Your task to perform on an android device: Open location settings Image 0: 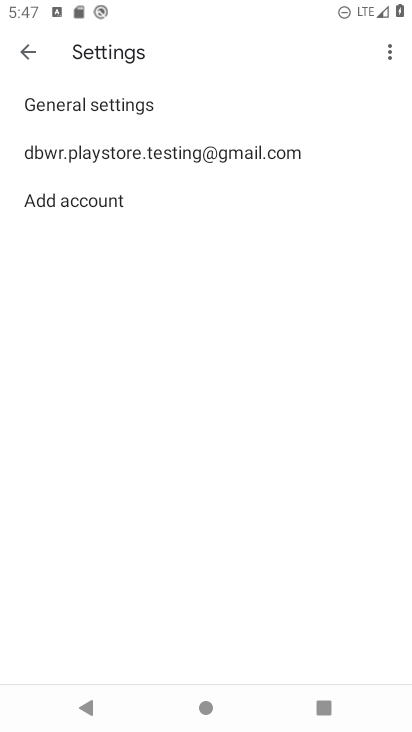
Step 0: press home button
Your task to perform on an android device: Open location settings Image 1: 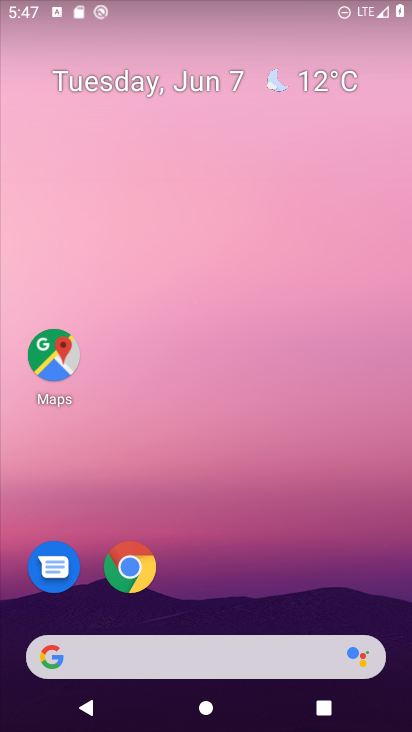
Step 1: drag from (341, 667) to (324, 36)
Your task to perform on an android device: Open location settings Image 2: 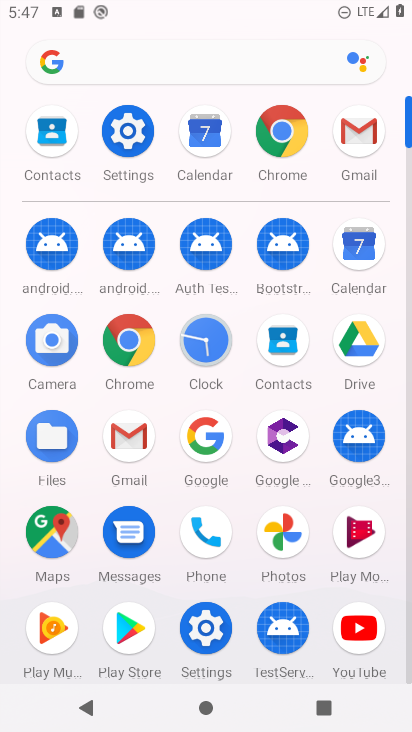
Step 2: click (125, 134)
Your task to perform on an android device: Open location settings Image 3: 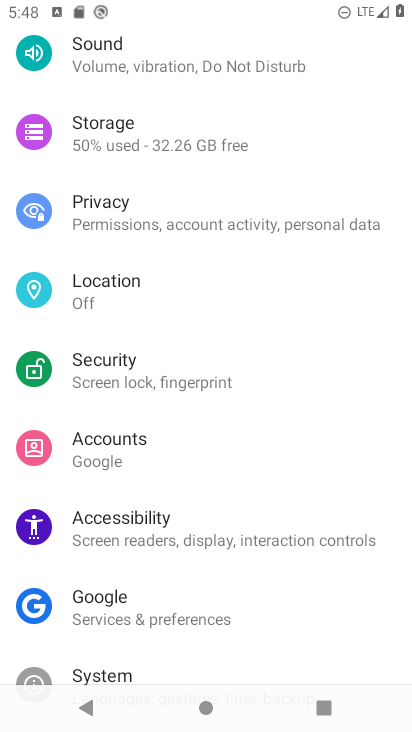
Step 3: click (181, 288)
Your task to perform on an android device: Open location settings Image 4: 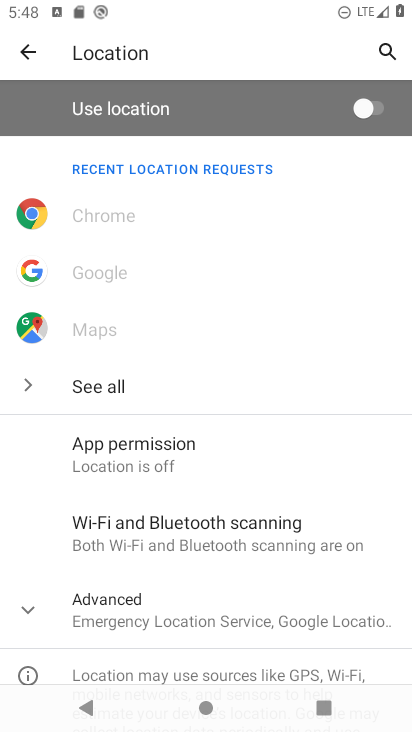
Step 4: drag from (300, 645) to (290, 336)
Your task to perform on an android device: Open location settings Image 5: 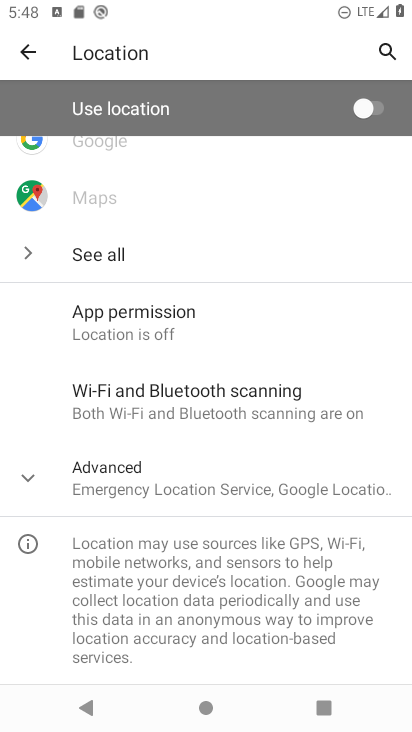
Step 5: click (230, 485)
Your task to perform on an android device: Open location settings Image 6: 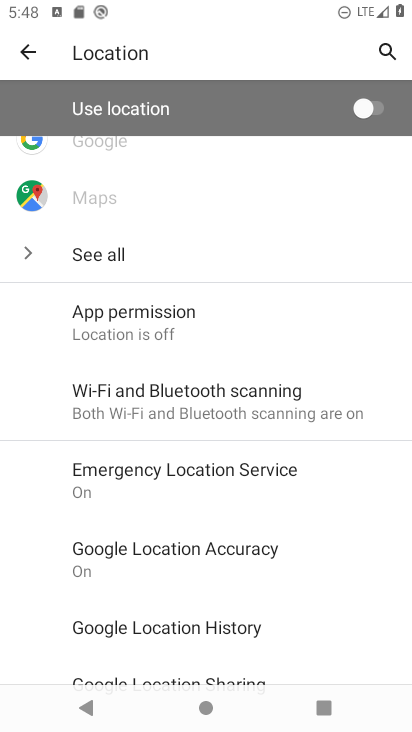
Step 6: task complete